Your task to perform on an android device: Turn off the flashlight Image 0: 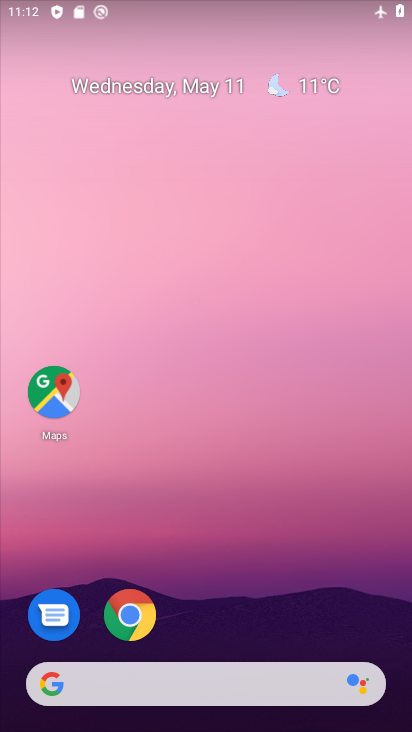
Step 0: drag from (241, 4) to (206, 559)
Your task to perform on an android device: Turn off the flashlight Image 1: 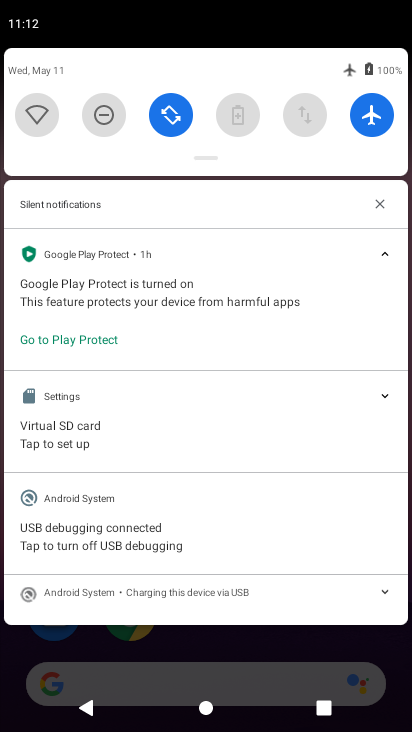
Step 1: task complete